Your task to perform on an android device: delete location history Image 0: 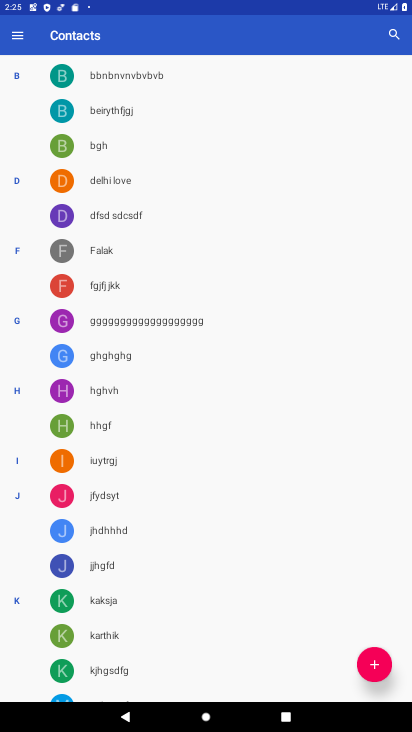
Step 0: press home button
Your task to perform on an android device: delete location history Image 1: 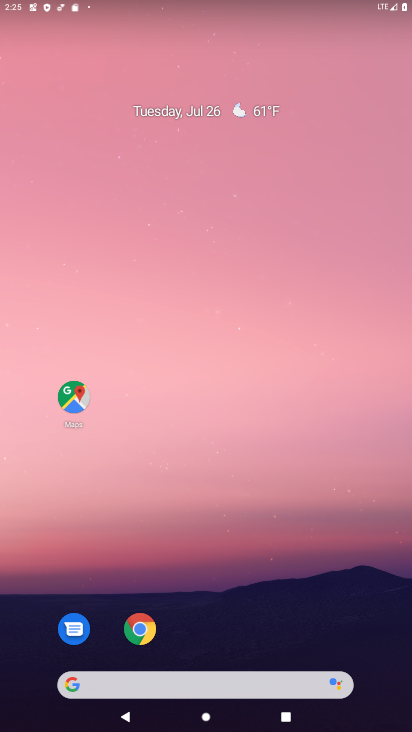
Step 1: drag from (175, 535) to (179, 256)
Your task to perform on an android device: delete location history Image 2: 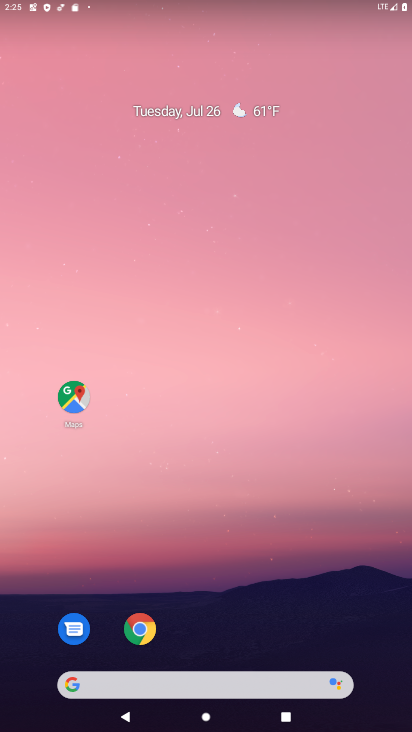
Step 2: drag from (190, 539) to (221, 111)
Your task to perform on an android device: delete location history Image 3: 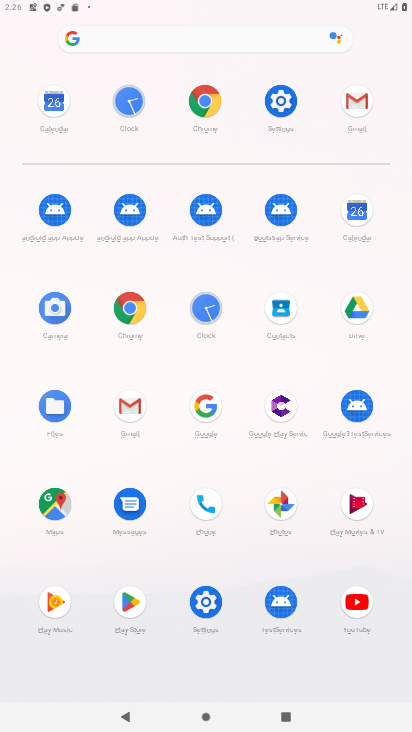
Step 3: click (50, 500)
Your task to perform on an android device: delete location history Image 4: 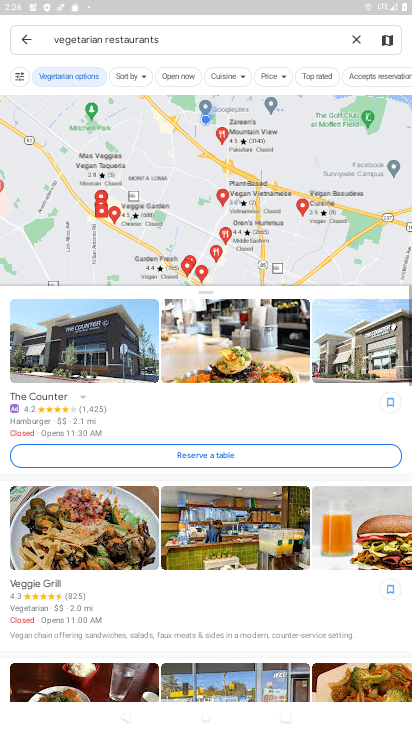
Step 4: click (28, 41)
Your task to perform on an android device: delete location history Image 5: 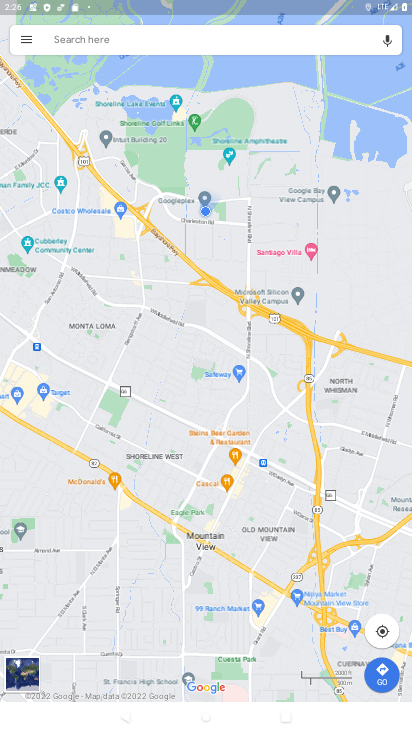
Step 5: click (21, 38)
Your task to perform on an android device: delete location history Image 6: 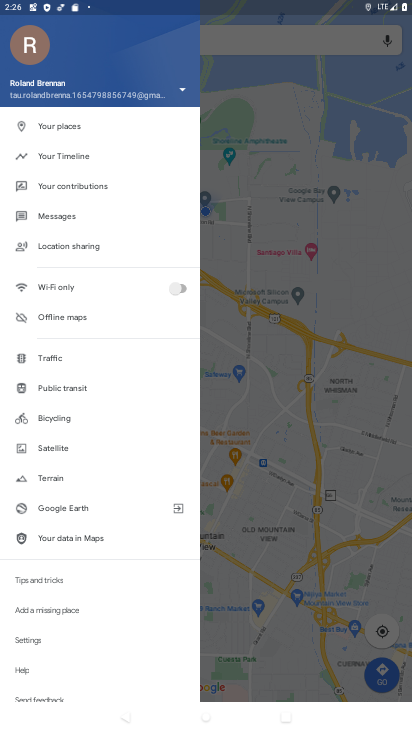
Step 6: click (53, 155)
Your task to perform on an android device: delete location history Image 7: 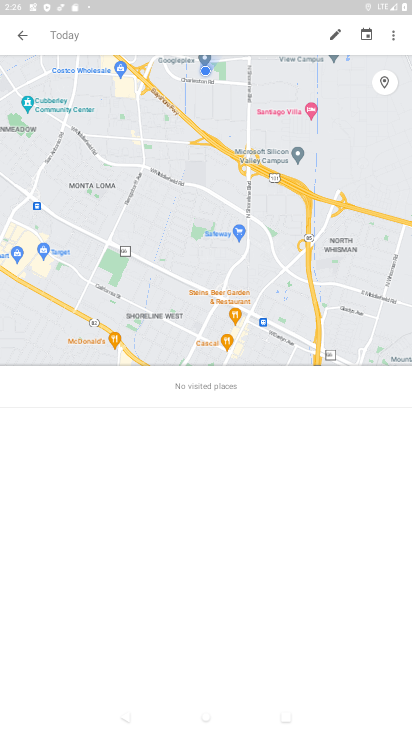
Step 7: click (397, 31)
Your task to perform on an android device: delete location history Image 8: 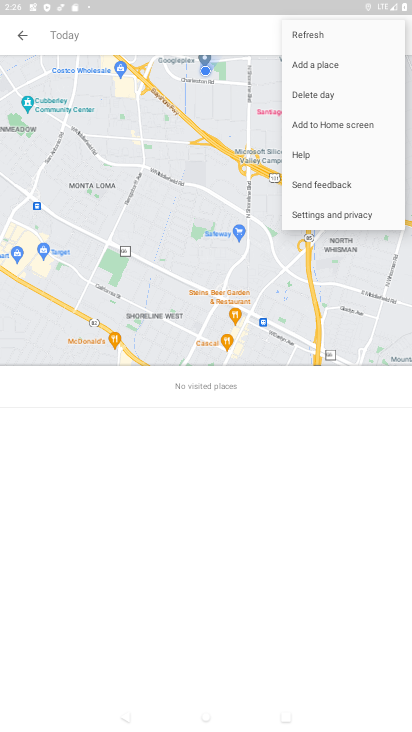
Step 8: click (310, 214)
Your task to perform on an android device: delete location history Image 9: 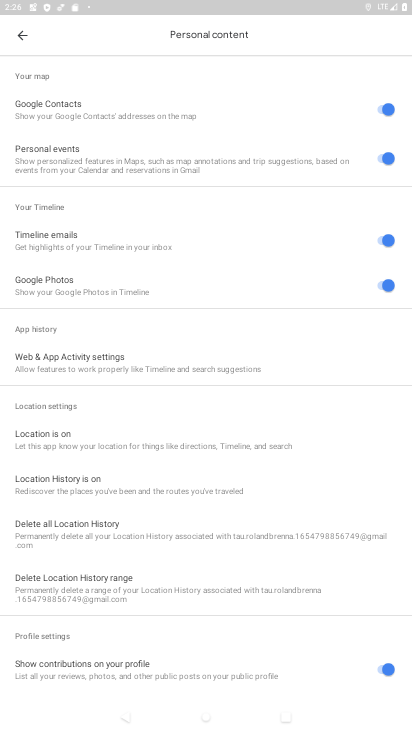
Step 9: click (58, 516)
Your task to perform on an android device: delete location history Image 10: 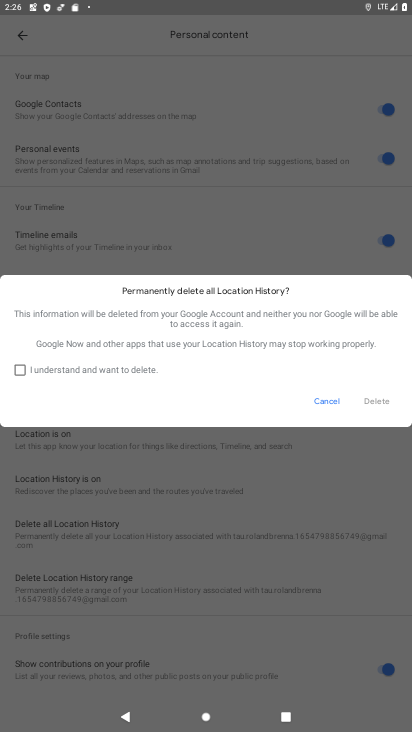
Step 10: click (17, 366)
Your task to perform on an android device: delete location history Image 11: 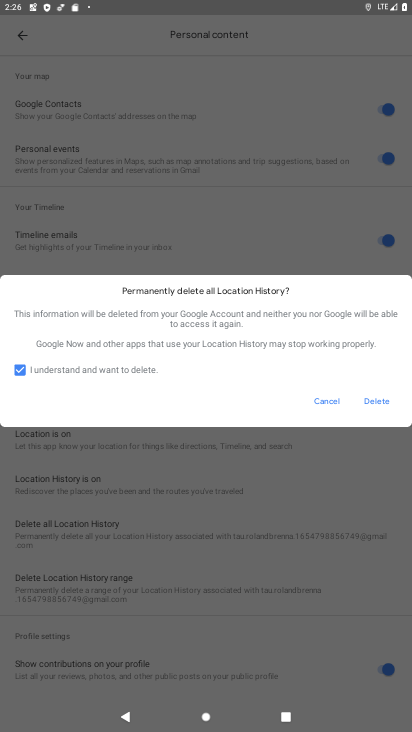
Step 11: click (373, 397)
Your task to perform on an android device: delete location history Image 12: 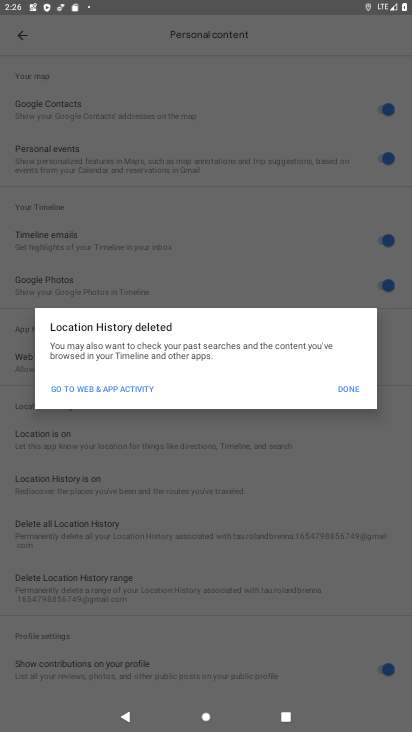
Step 12: click (337, 379)
Your task to perform on an android device: delete location history Image 13: 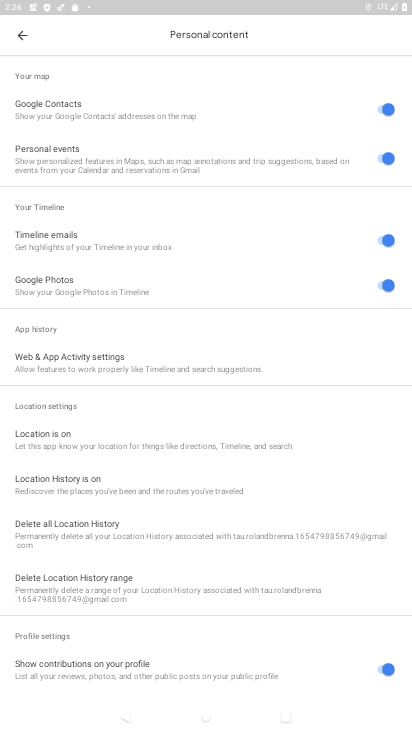
Step 13: task complete